Your task to perform on an android device: Go to eBay Image 0: 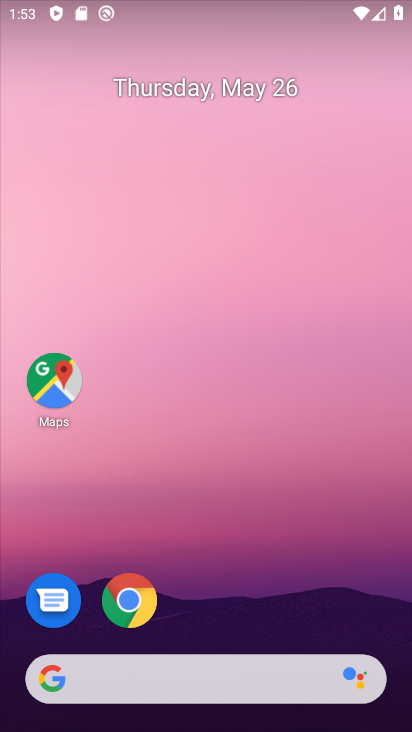
Step 0: drag from (242, 593) to (229, 31)
Your task to perform on an android device: Go to eBay Image 1: 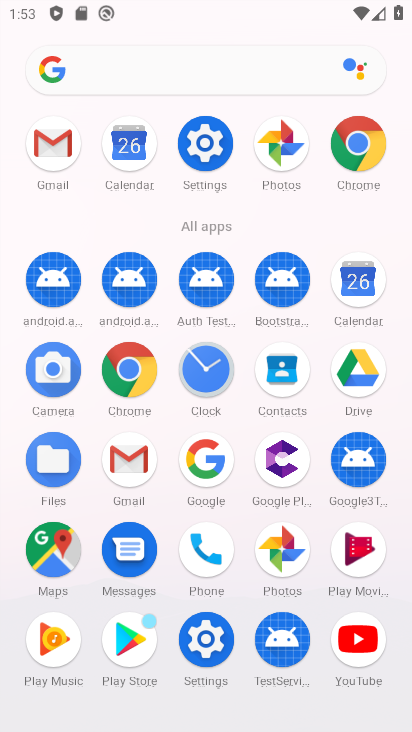
Step 1: click (119, 364)
Your task to perform on an android device: Go to eBay Image 2: 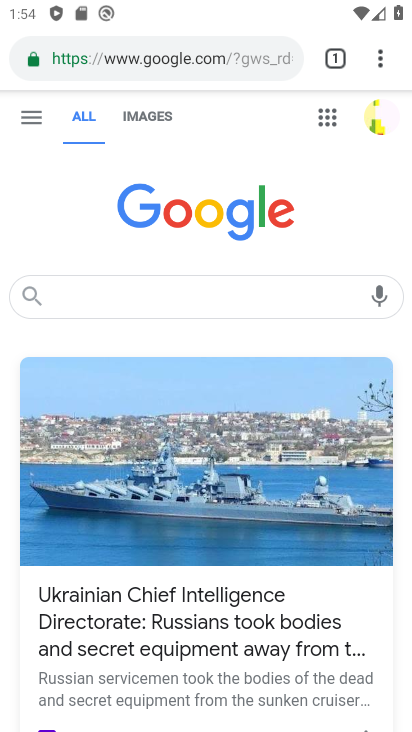
Step 2: click (200, 56)
Your task to perform on an android device: Go to eBay Image 3: 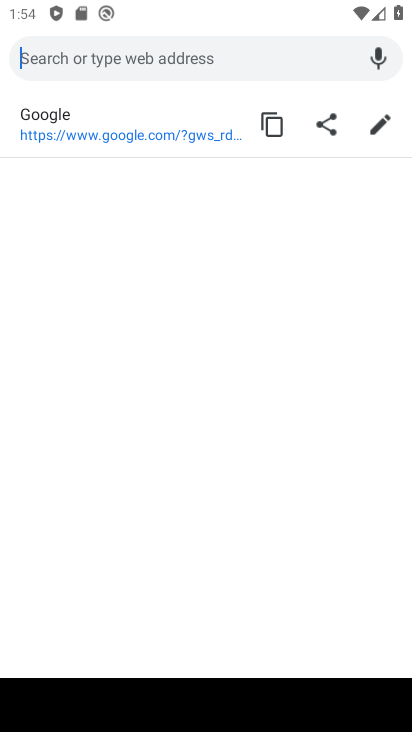
Step 3: type "eBay"
Your task to perform on an android device: Go to eBay Image 4: 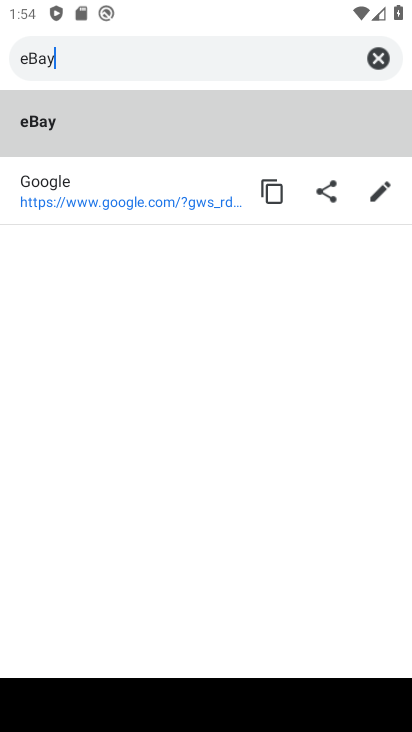
Step 4: type ""
Your task to perform on an android device: Go to eBay Image 5: 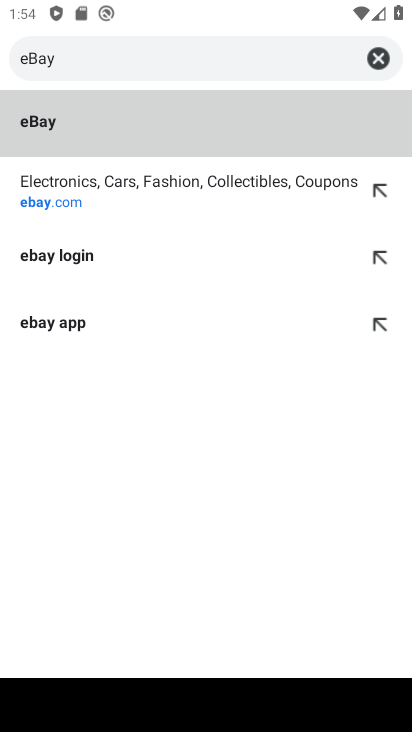
Step 5: click (148, 199)
Your task to perform on an android device: Go to eBay Image 6: 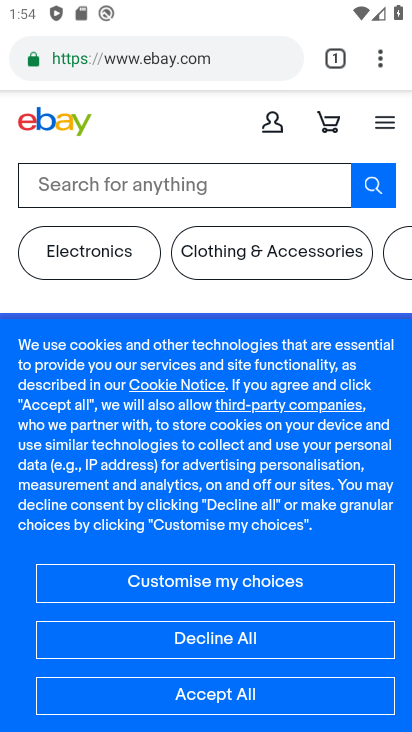
Step 6: task complete